Your task to perform on an android device: Go to Amazon Image 0: 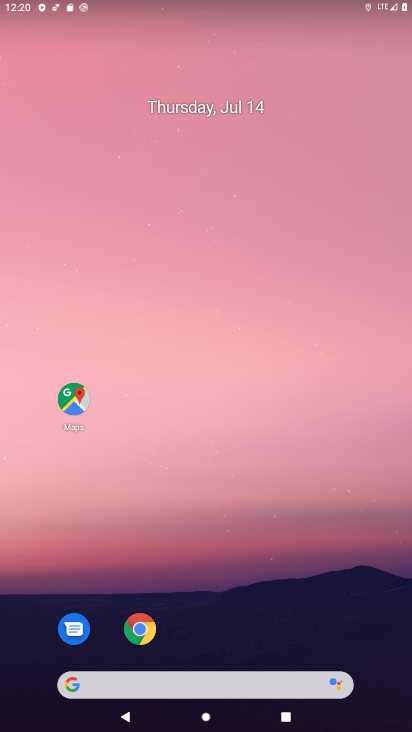
Step 0: drag from (258, 549) to (198, 76)
Your task to perform on an android device: Go to Amazon Image 1: 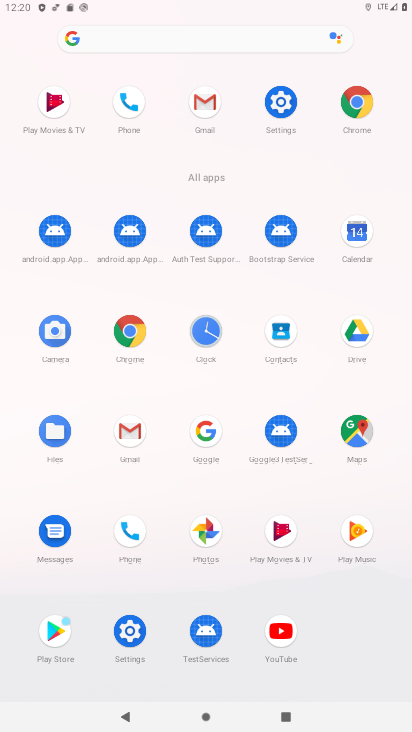
Step 1: click (355, 105)
Your task to perform on an android device: Go to Amazon Image 2: 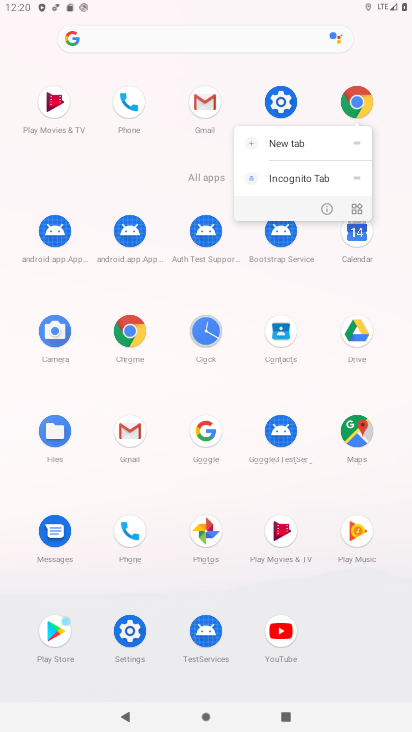
Step 2: click (356, 103)
Your task to perform on an android device: Go to Amazon Image 3: 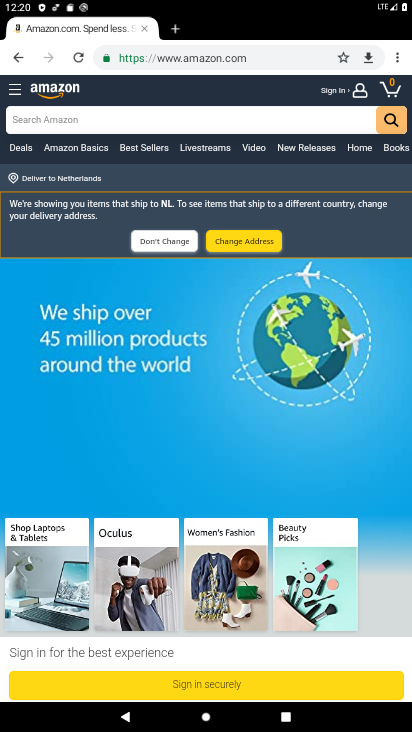
Step 3: task complete